Your task to perform on an android device: turn off javascript in the chrome app Image 0: 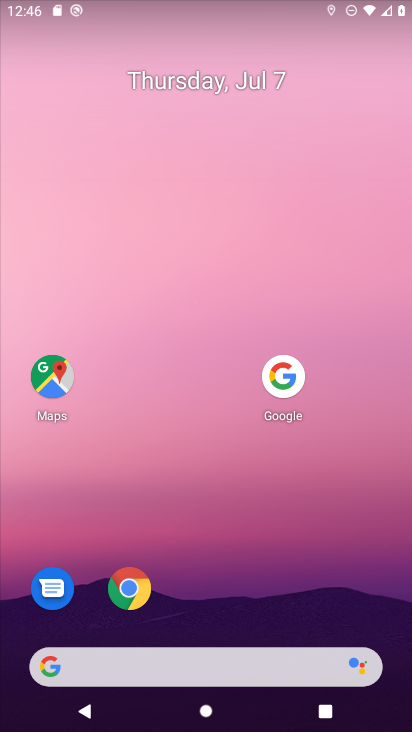
Step 0: click (135, 590)
Your task to perform on an android device: turn off javascript in the chrome app Image 1: 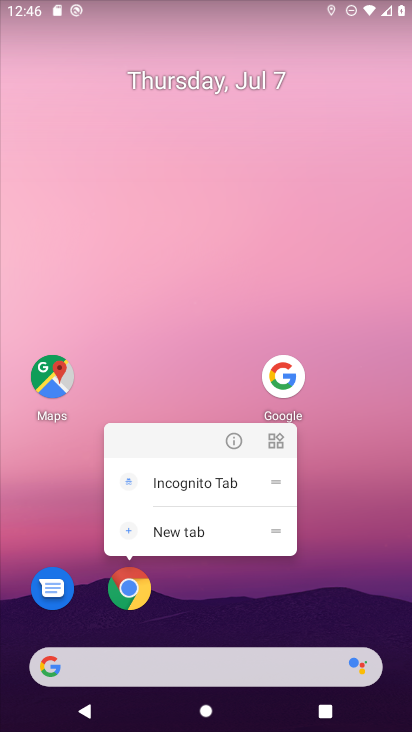
Step 1: click (128, 592)
Your task to perform on an android device: turn off javascript in the chrome app Image 2: 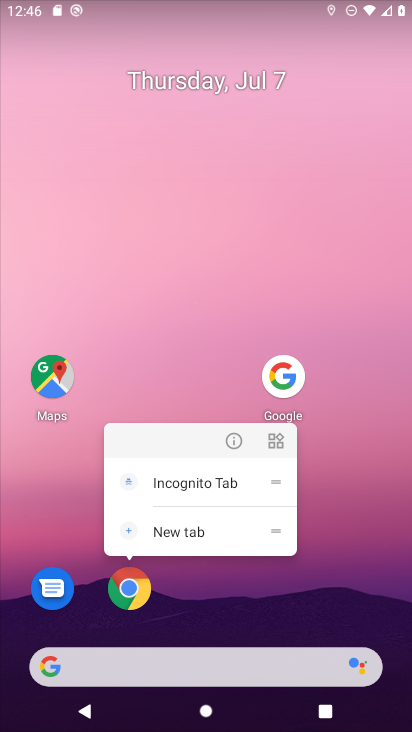
Step 2: click (128, 588)
Your task to perform on an android device: turn off javascript in the chrome app Image 3: 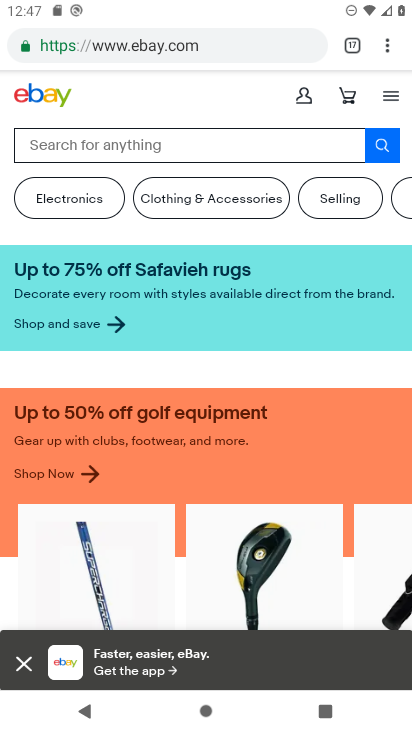
Step 3: drag from (384, 49) to (242, 554)
Your task to perform on an android device: turn off javascript in the chrome app Image 4: 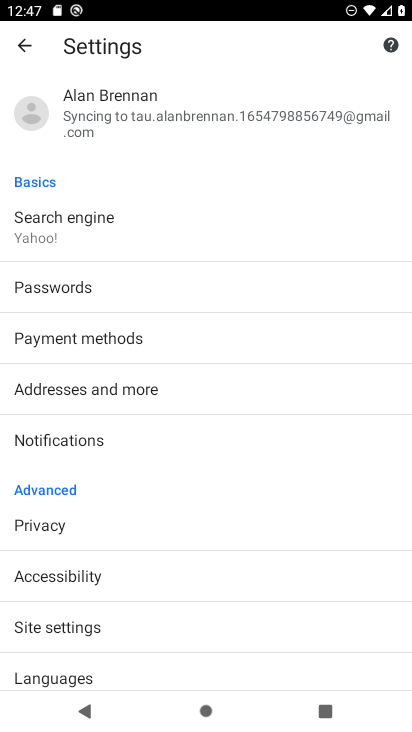
Step 4: click (80, 630)
Your task to perform on an android device: turn off javascript in the chrome app Image 5: 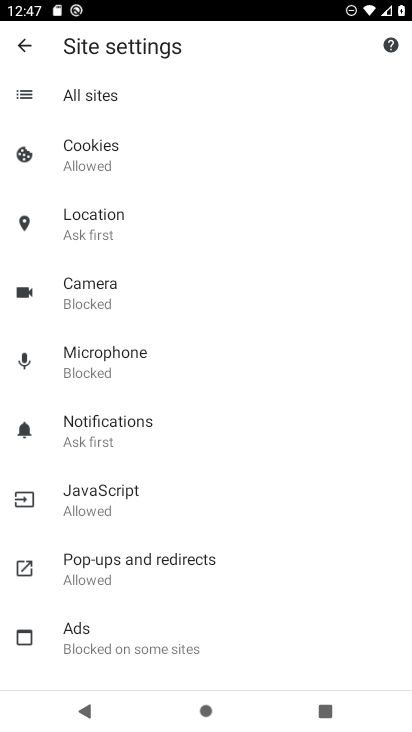
Step 5: click (118, 491)
Your task to perform on an android device: turn off javascript in the chrome app Image 6: 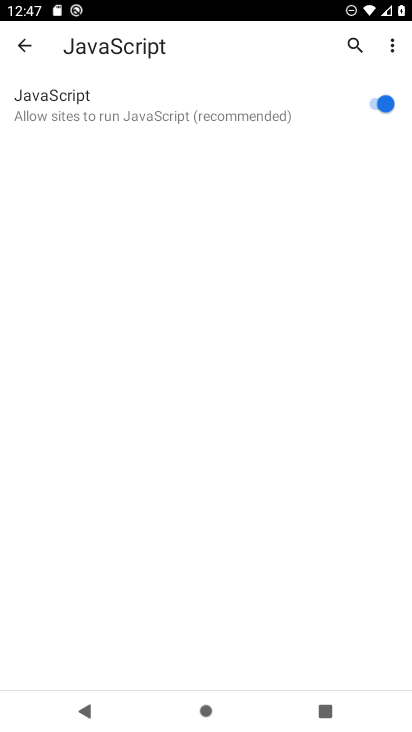
Step 6: click (373, 101)
Your task to perform on an android device: turn off javascript in the chrome app Image 7: 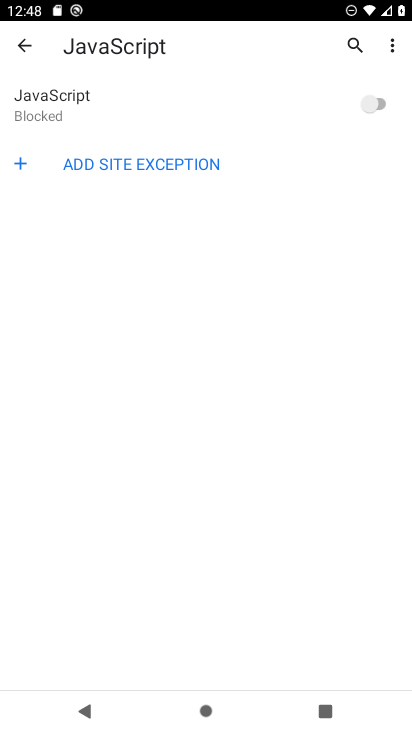
Step 7: task complete